Your task to perform on an android device: toggle airplane mode Image 0: 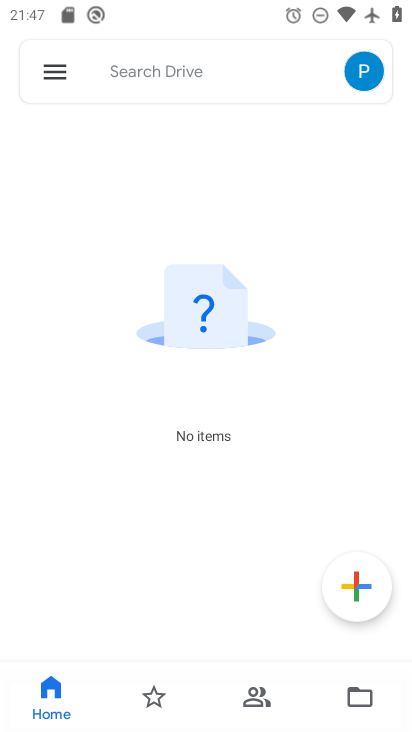
Step 0: press home button
Your task to perform on an android device: toggle airplane mode Image 1: 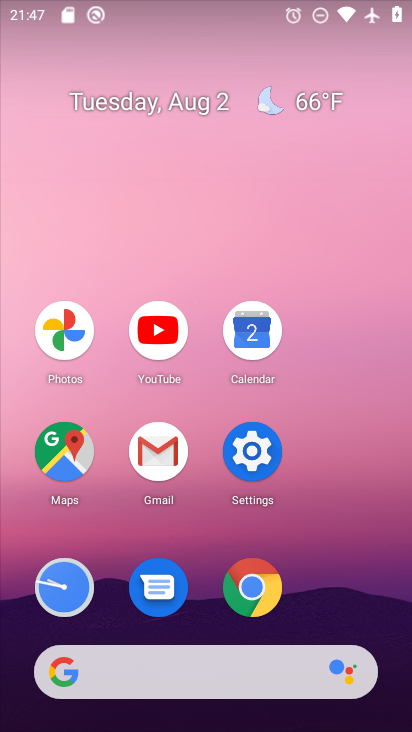
Step 1: click (250, 453)
Your task to perform on an android device: toggle airplane mode Image 2: 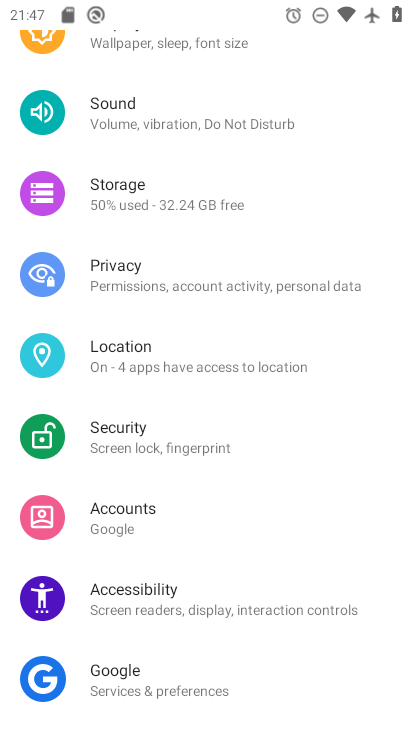
Step 2: drag from (170, 109) to (200, 682)
Your task to perform on an android device: toggle airplane mode Image 3: 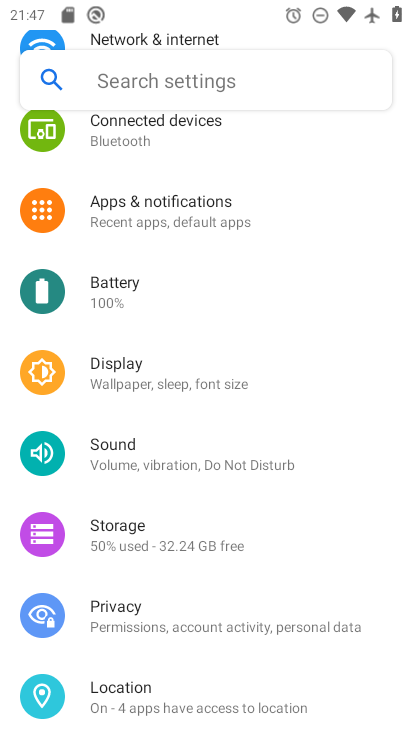
Step 3: drag from (201, 307) to (303, 730)
Your task to perform on an android device: toggle airplane mode Image 4: 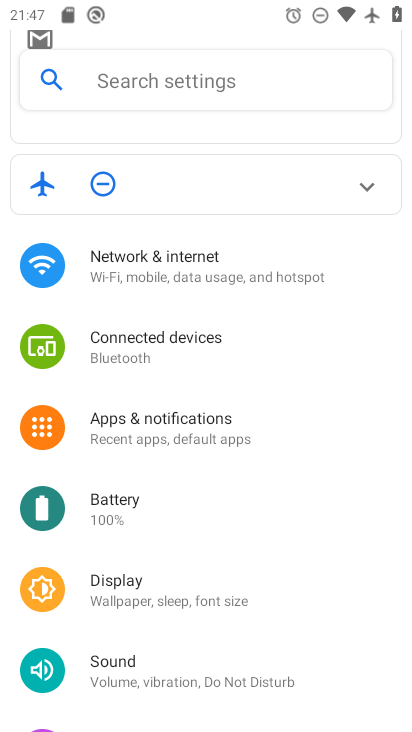
Step 4: click (164, 265)
Your task to perform on an android device: toggle airplane mode Image 5: 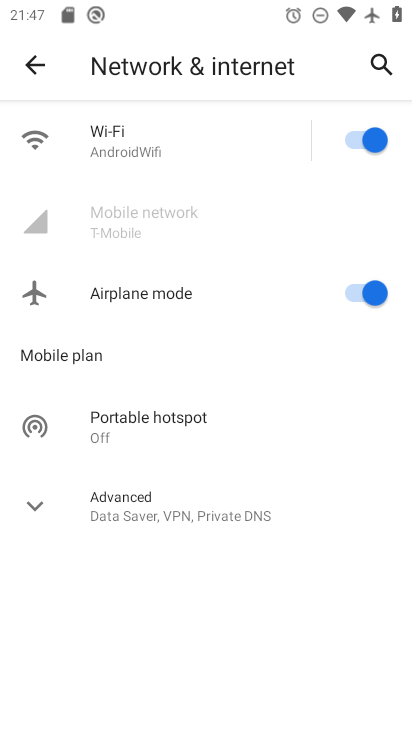
Step 5: click (373, 292)
Your task to perform on an android device: toggle airplane mode Image 6: 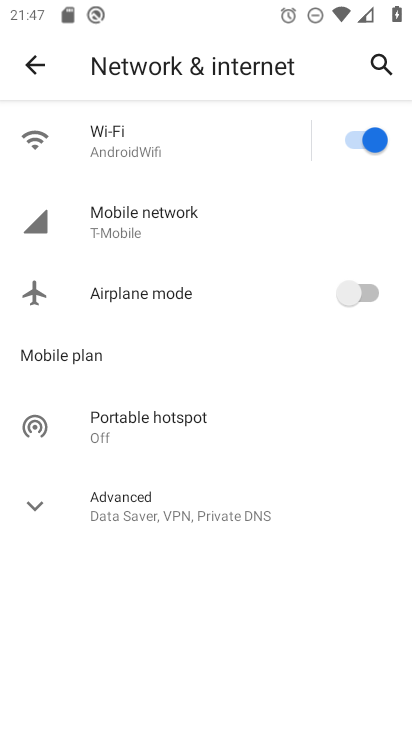
Step 6: task complete